Your task to perform on an android device: Open the calendar and show me this week's events? Image 0: 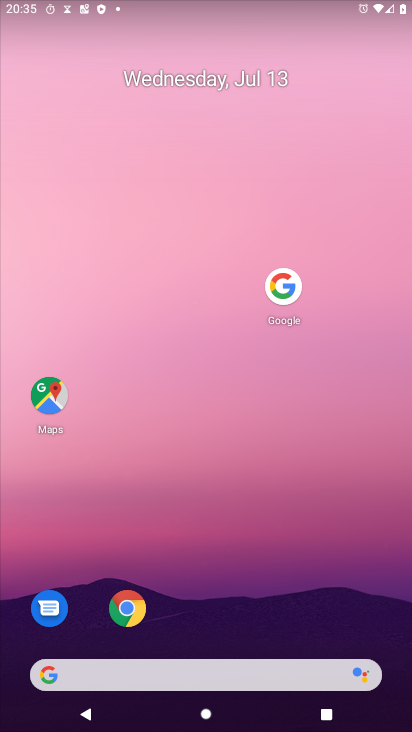
Step 0: drag from (218, 634) to (228, 161)
Your task to perform on an android device: Open the calendar and show me this week's events? Image 1: 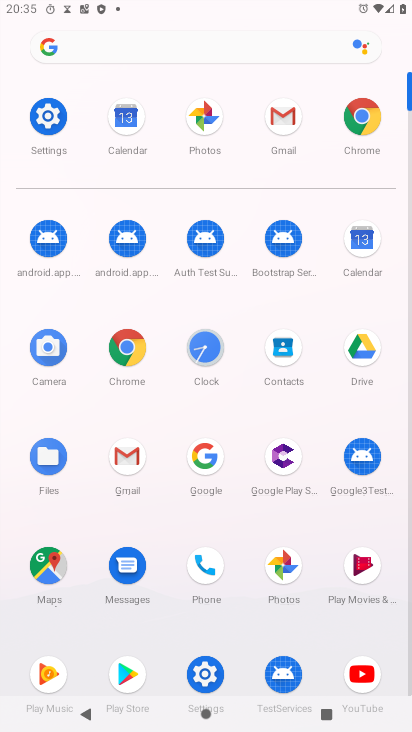
Step 1: click (379, 236)
Your task to perform on an android device: Open the calendar and show me this week's events? Image 2: 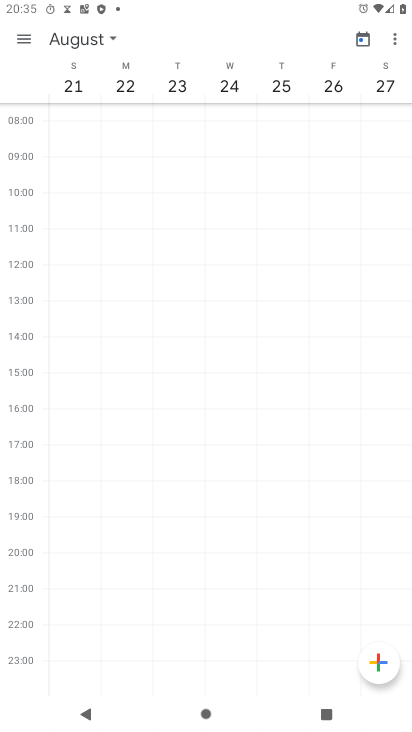
Step 2: click (357, 38)
Your task to perform on an android device: Open the calendar and show me this week's events? Image 3: 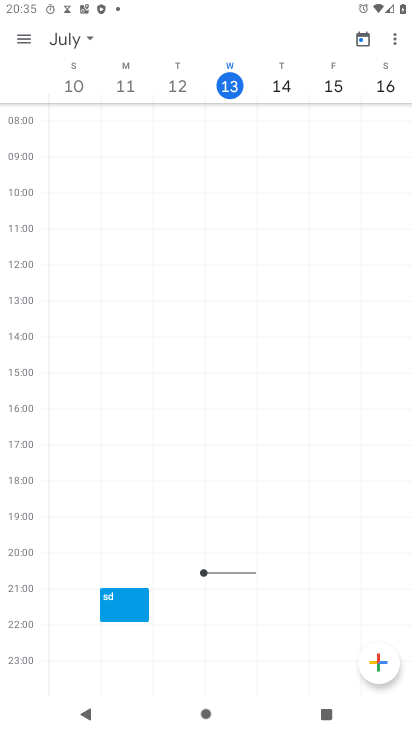
Step 3: task complete